Your task to perform on an android device: Show me productivity apps on the Play Store Image 0: 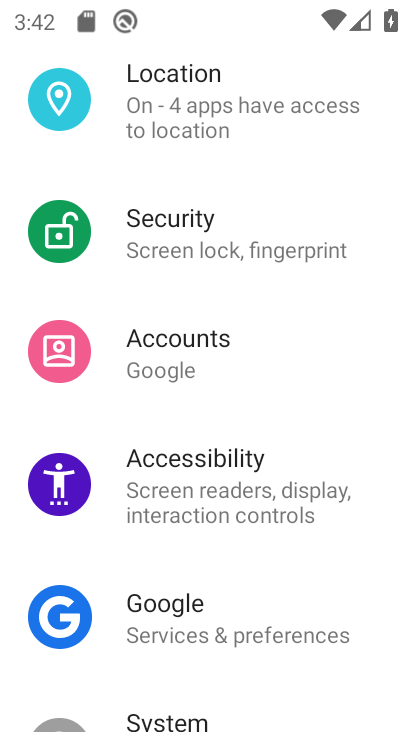
Step 0: press home button
Your task to perform on an android device: Show me productivity apps on the Play Store Image 1: 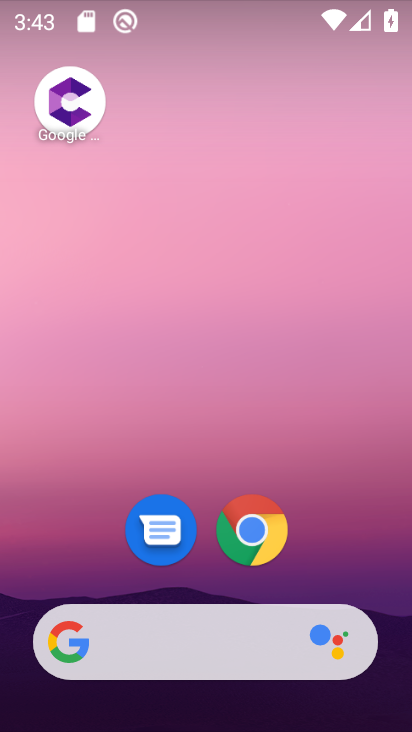
Step 1: drag from (190, 609) to (264, 53)
Your task to perform on an android device: Show me productivity apps on the Play Store Image 2: 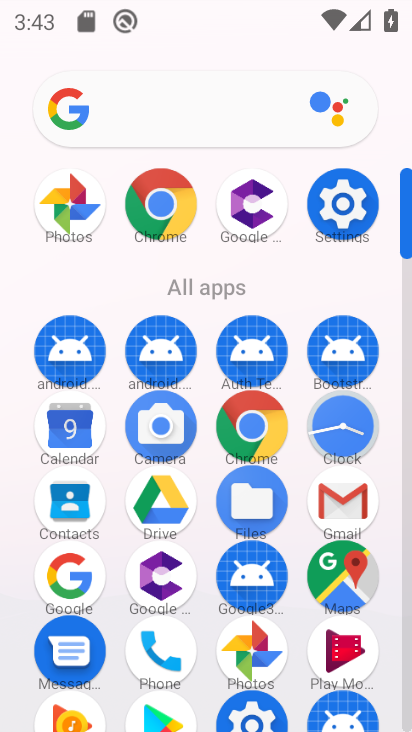
Step 2: drag from (200, 661) to (299, 254)
Your task to perform on an android device: Show me productivity apps on the Play Store Image 3: 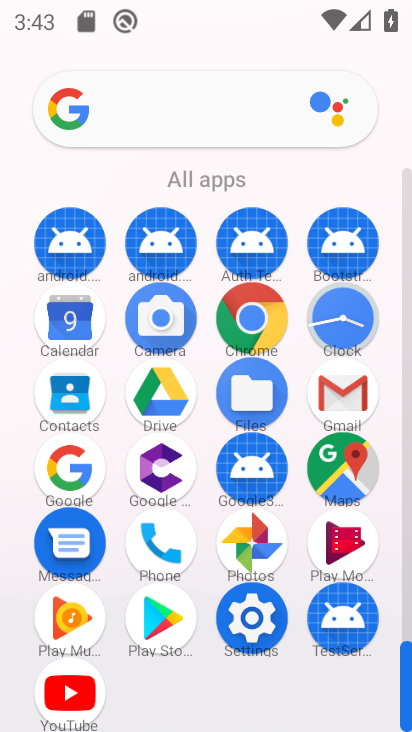
Step 3: click (162, 629)
Your task to perform on an android device: Show me productivity apps on the Play Store Image 4: 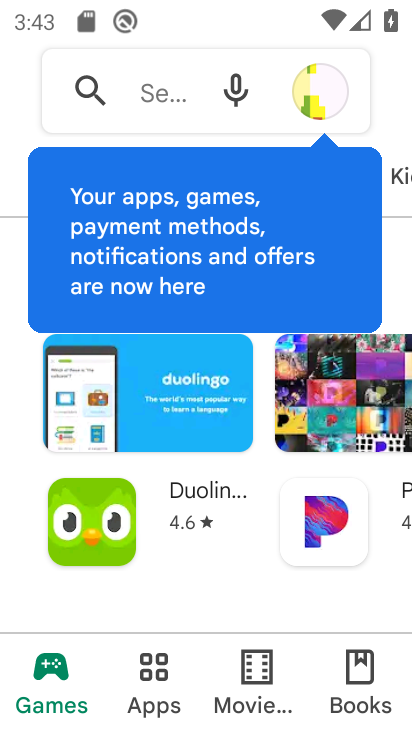
Step 4: click (150, 669)
Your task to perform on an android device: Show me productivity apps on the Play Store Image 5: 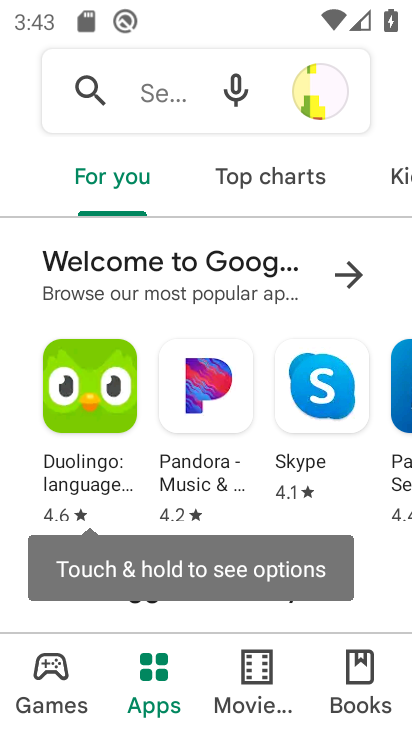
Step 5: drag from (195, 579) to (282, 160)
Your task to perform on an android device: Show me productivity apps on the Play Store Image 6: 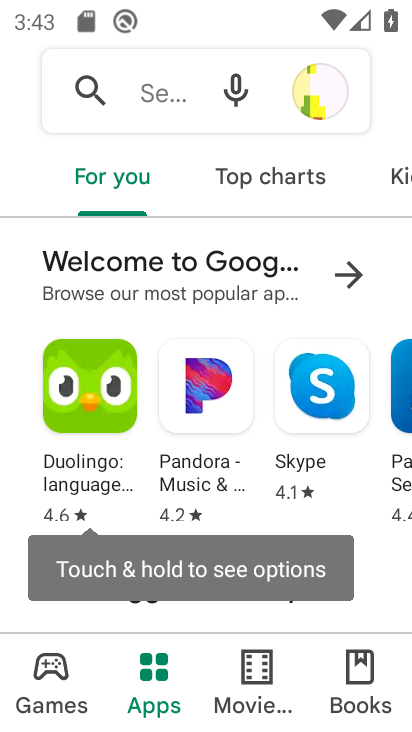
Step 6: drag from (192, 503) to (239, 61)
Your task to perform on an android device: Show me productivity apps on the Play Store Image 7: 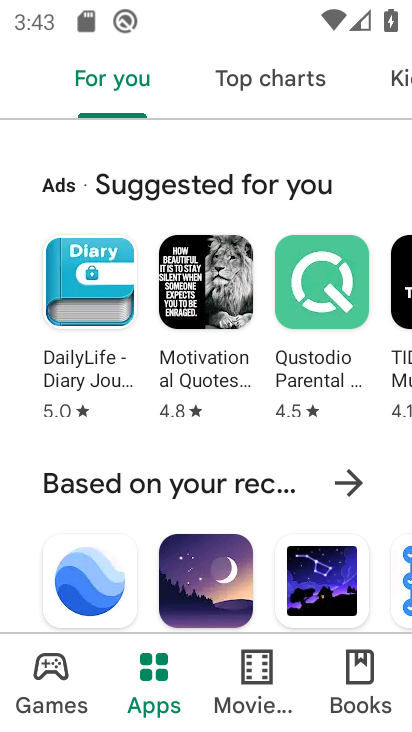
Step 7: drag from (184, 580) to (269, 54)
Your task to perform on an android device: Show me productivity apps on the Play Store Image 8: 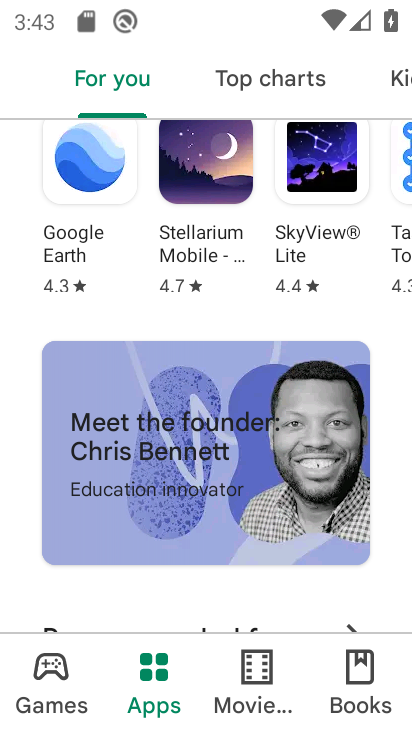
Step 8: drag from (176, 526) to (256, 202)
Your task to perform on an android device: Show me productivity apps on the Play Store Image 9: 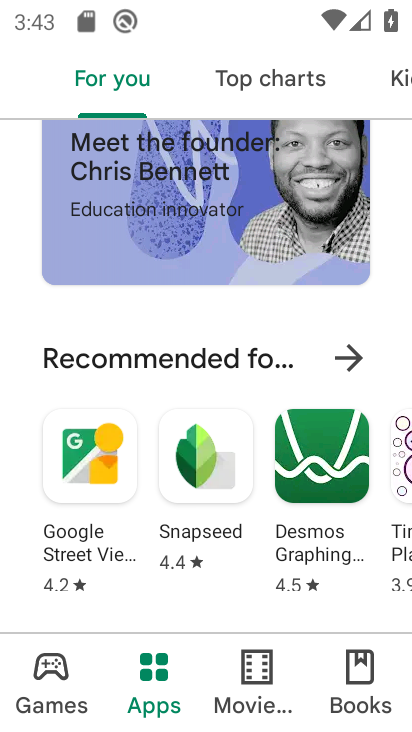
Step 9: drag from (166, 609) to (247, 131)
Your task to perform on an android device: Show me productivity apps on the Play Store Image 10: 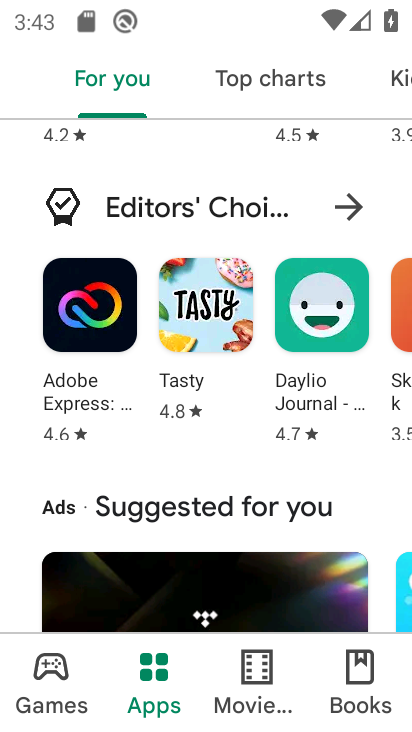
Step 10: drag from (160, 584) to (226, 231)
Your task to perform on an android device: Show me productivity apps on the Play Store Image 11: 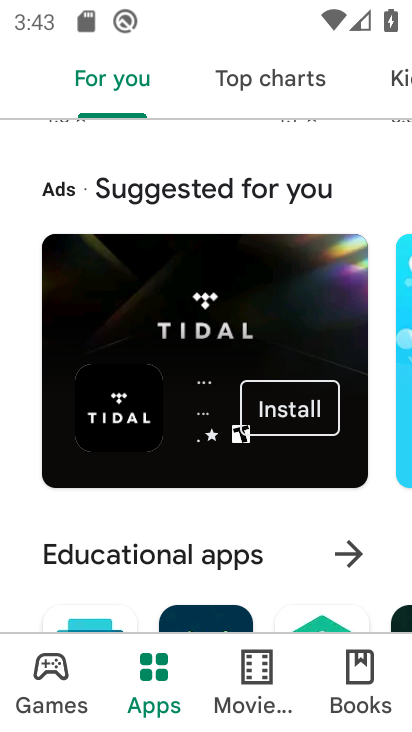
Step 11: drag from (129, 614) to (253, 125)
Your task to perform on an android device: Show me productivity apps on the Play Store Image 12: 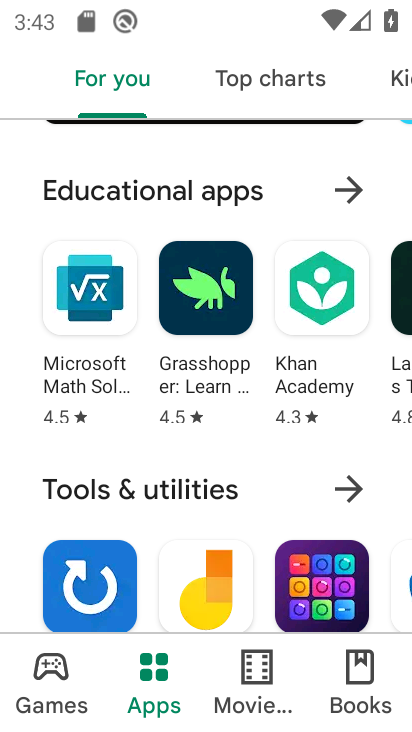
Step 12: drag from (177, 446) to (272, 80)
Your task to perform on an android device: Show me productivity apps on the Play Store Image 13: 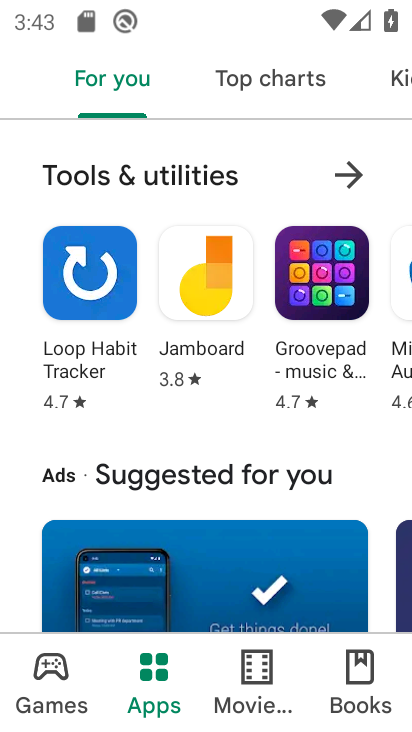
Step 13: drag from (181, 519) to (299, 65)
Your task to perform on an android device: Show me productivity apps on the Play Store Image 14: 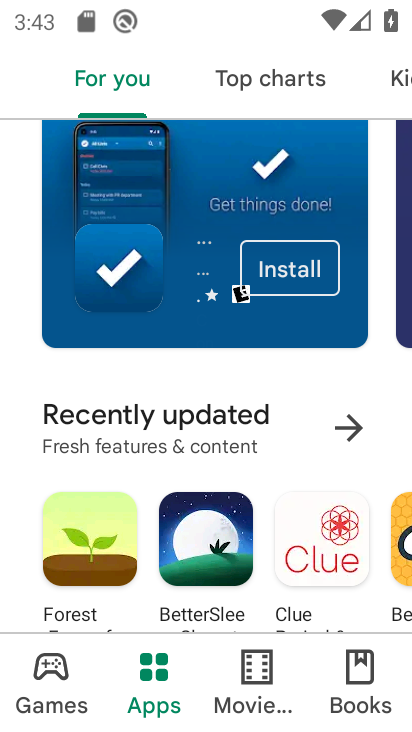
Step 14: drag from (180, 586) to (292, 66)
Your task to perform on an android device: Show me productivity apps on the Play Store Image 15: 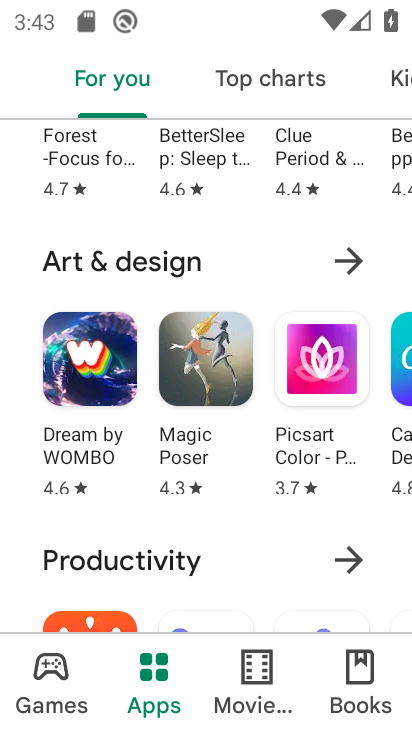
Step 15: drag from (130, 583) to (228, 240)
Your task to perform on an android device: Show me productivity apps on the Play Store Image 16: 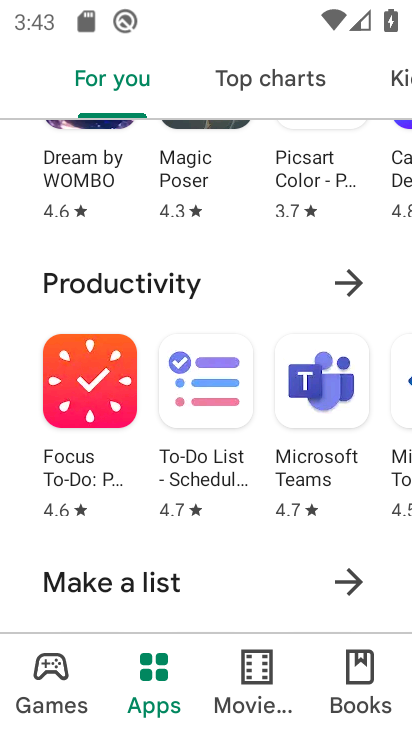
Step 16: click (353, 291)
Your task to perform on an android device: Show me productivity apps on the Play Store Image 17: 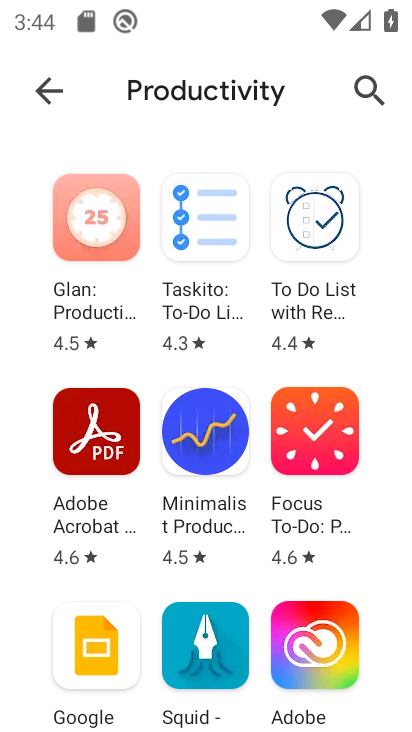
Step 17: task complete